Your task to perform on an android device: install app "eBay: The shopping marketplace" Image 0: 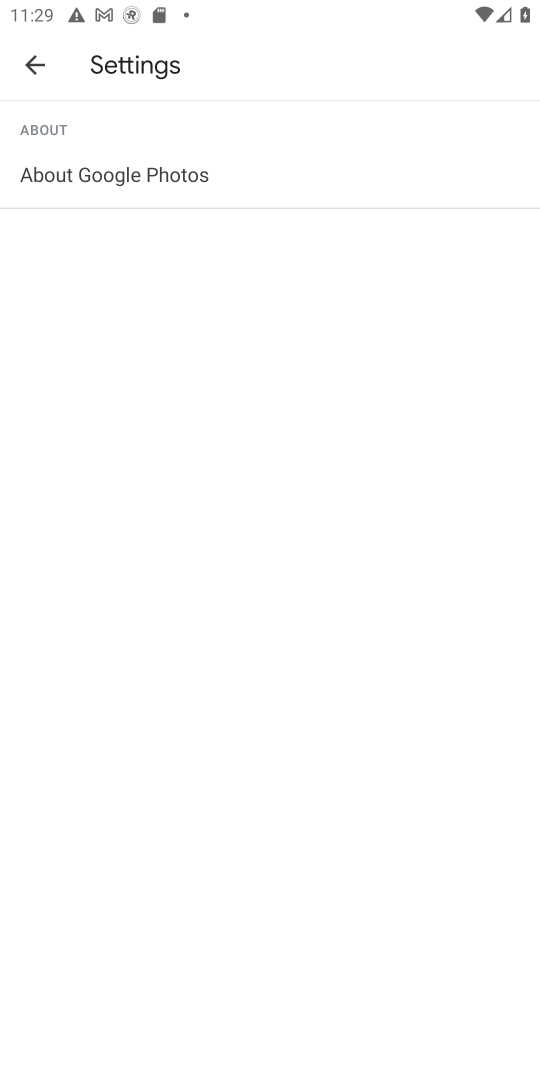
Step 0: press home button
Your task to perform on an android device: install app "eBay: The shopping marketplace" Image 1: 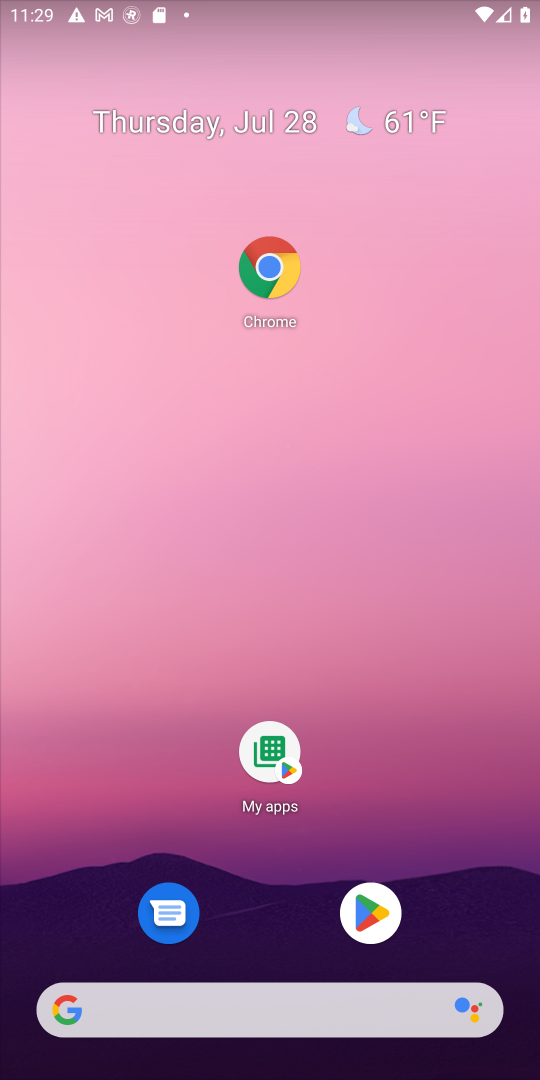
Step 1: click (377, 908)
Your task to perform on an android device: install app "eBay: The shopping marketplace" Image 2: 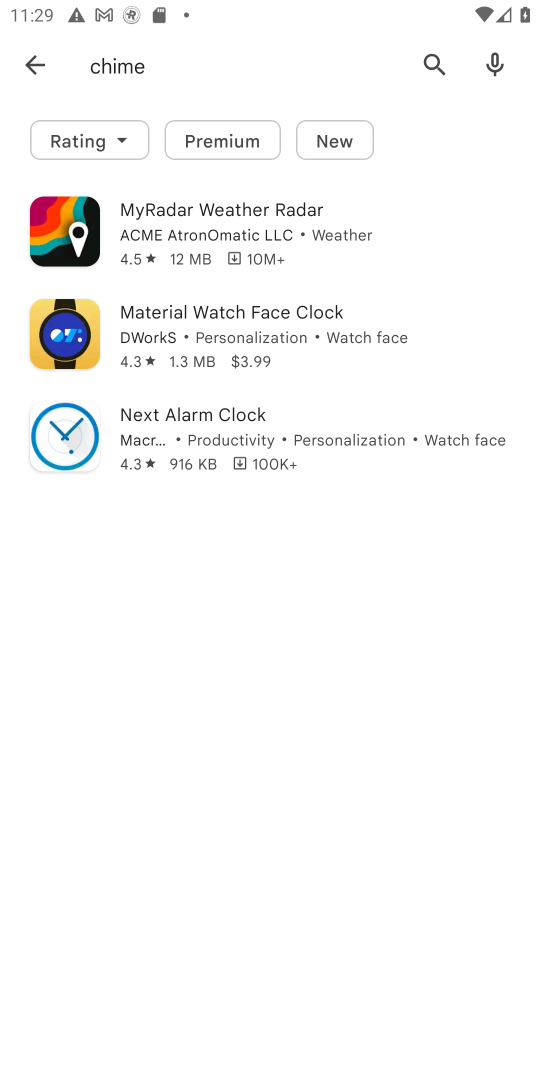
Step 2: click (425, 62)
Your task to perform on an android device: install app "eBay: The shopping marketplace" Image 3: 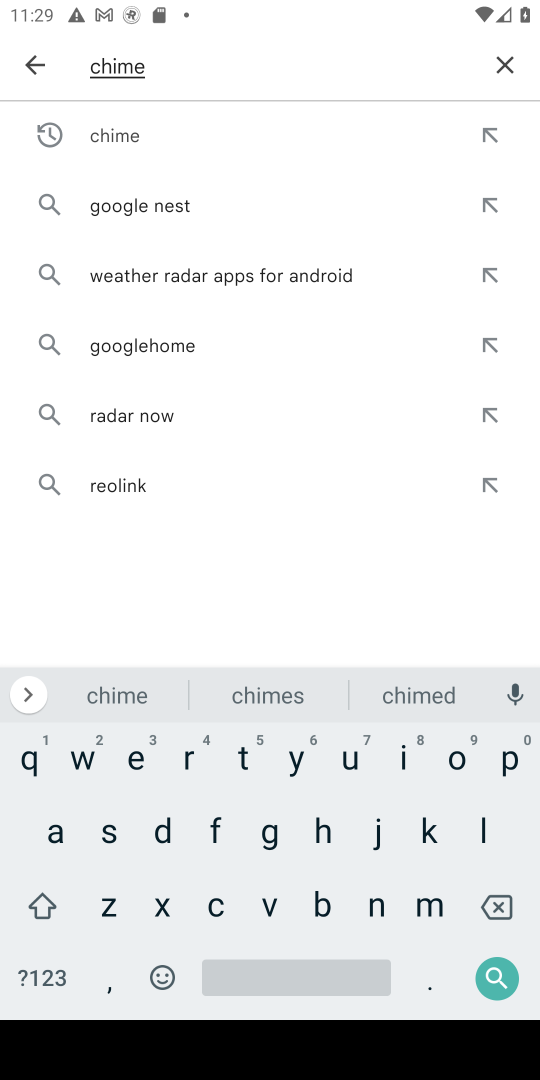
Step 3: click (503, 70)
Your task to perform on an android device: install app "eBay: The shopping marketplace" Image 4: 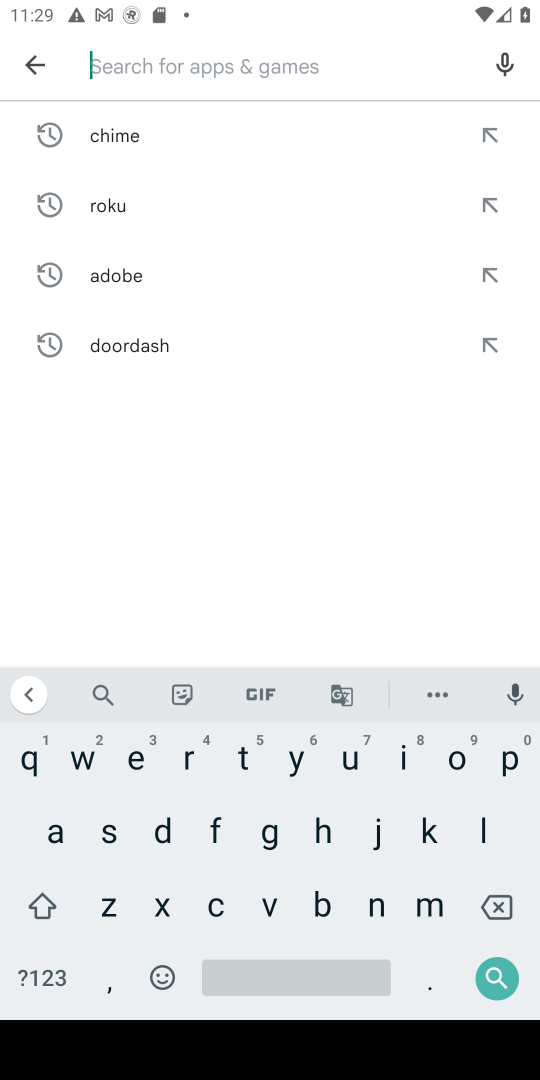
Step 4: click (124, 758)
Your task to perform on an android device: install app "eBay: The shopping marketplace" Image 5: 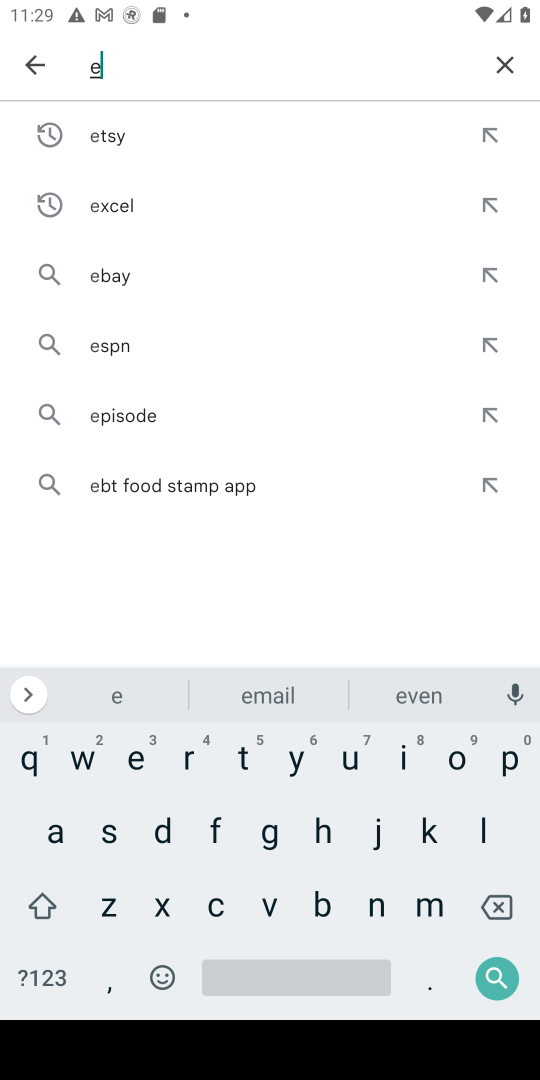
Step 5: click (313, 901)
Your task to perform on an android device: install app "eBay: The shopping marketplace" Image 6: 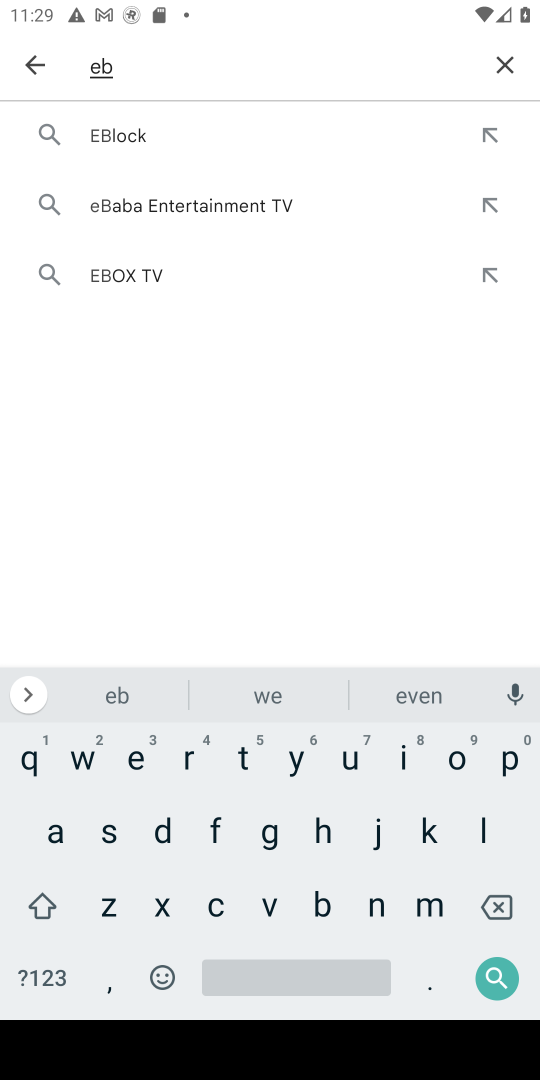
Step 6: click (51, 840)
Your task to perform on an android device: install app "eBay: The shopping marketplace" Image 7: 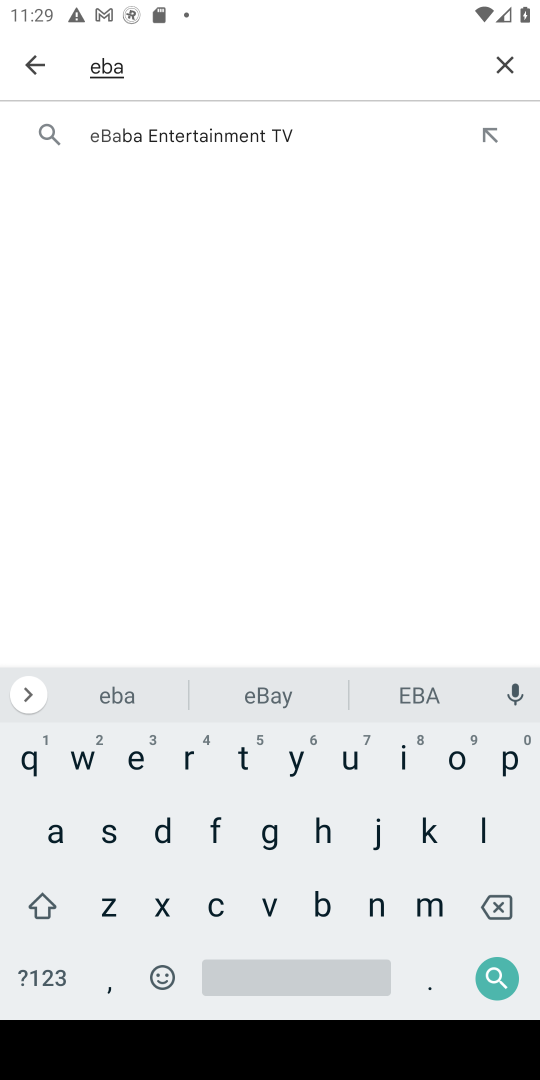
Step 7: click (276, 709)
Your task to perform on an android device: install app "eBay: The shopping marketplace" Image 8: 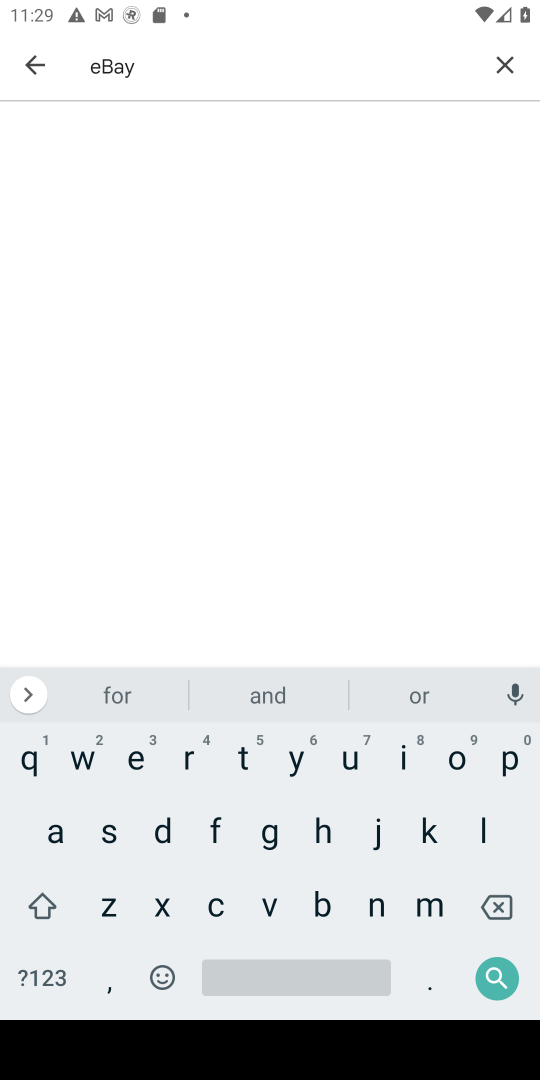
Step 8: click (505, 986)
Your task to perform on an android device: install app "eBay: The shopping marketplace" Image 9: 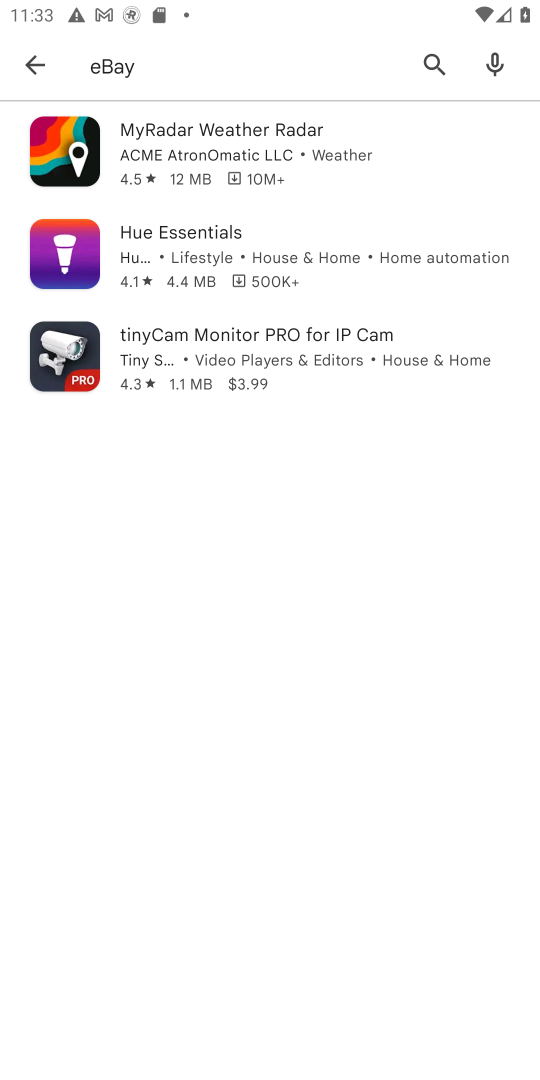
Step 9: task complete